Your task to perform on an android device: When is my next meeting? Image 0: 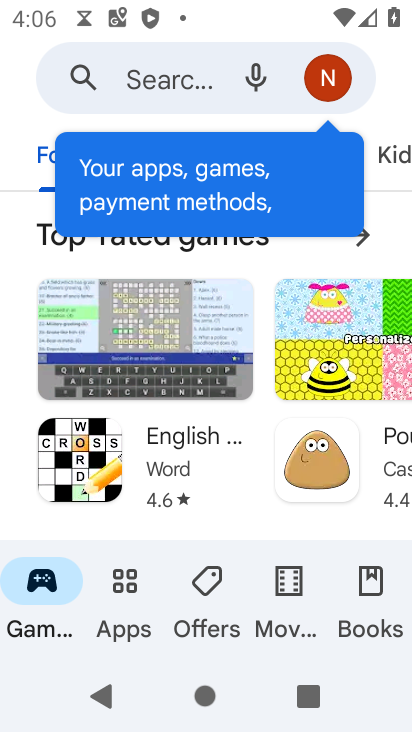
Step 0: press back button
Your task to perform on an android device: When is my next meeting? Image 1: 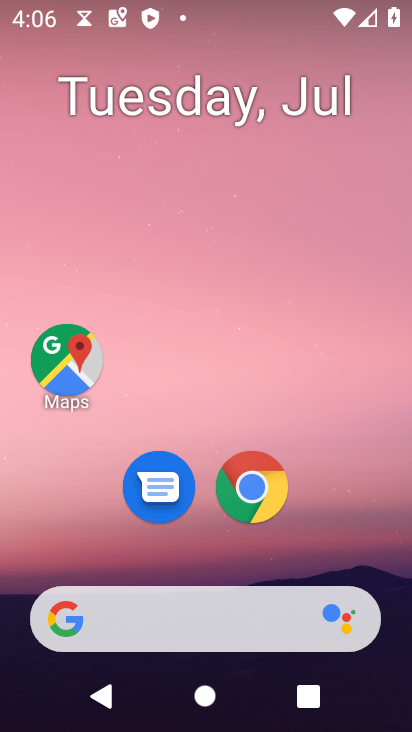
Step 1: drag from (178, 508) to (270, 24)
Your task to perform on an android device: When is my next meeting? Image 2: 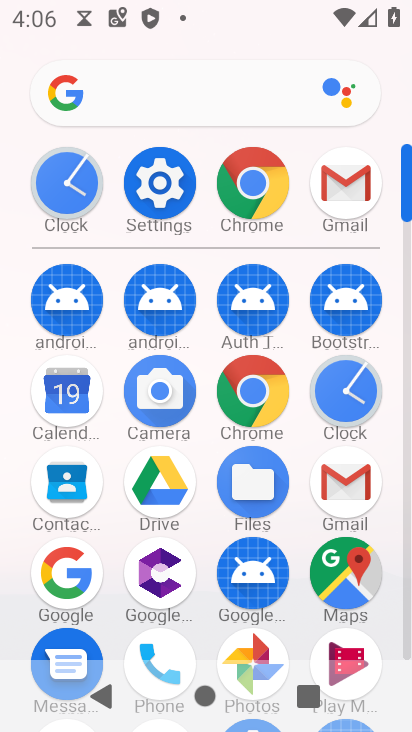
Step 2: click (86, 399)
Your task to perform on an android device: When is my next meeting? Image 3: 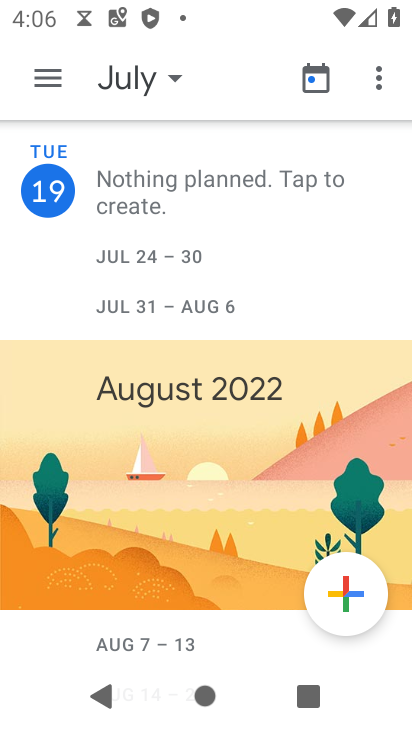
Step 3: task complete